Your task to perform on an android device: choose inbox layout in the gmail app Image 0: 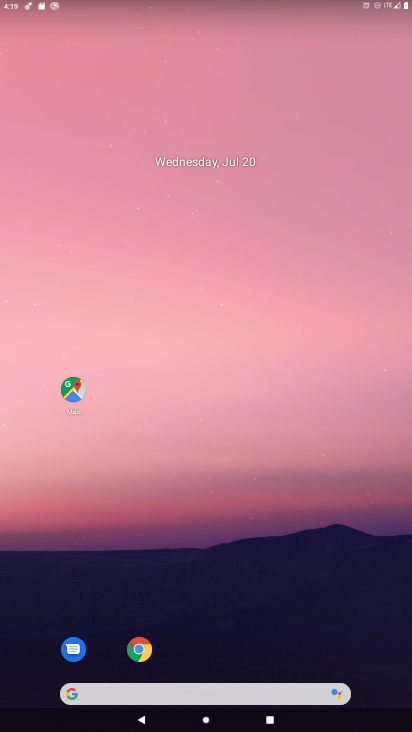
Step 0: drag from (163, 687) to (156, 30)
Your task to perform on an android device: choose inbox layout in the gmail app Image 1: 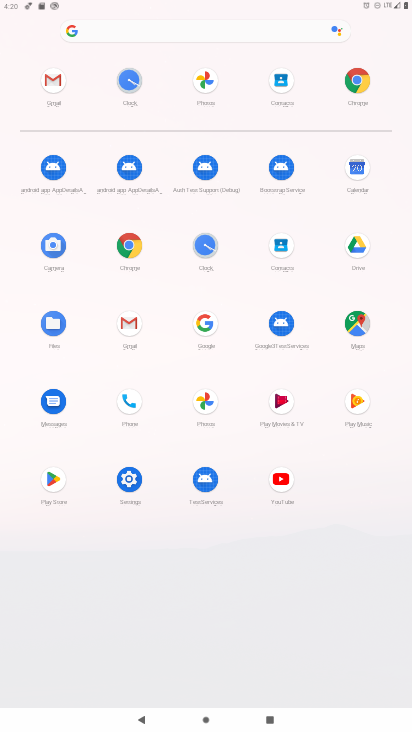
Step 1: click (128, 322)
Your task to perform on an android device: choose inbox layout in the gmail app Image 2: 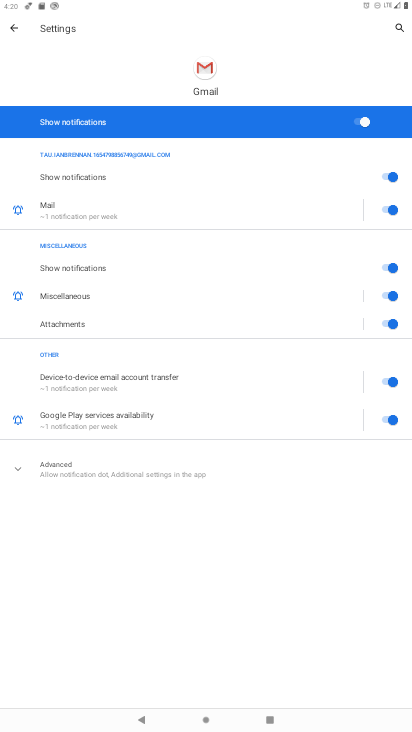
Step 2: press back button
Your task to perform on an android device: choose inbox layout in the gmail app Image 3: 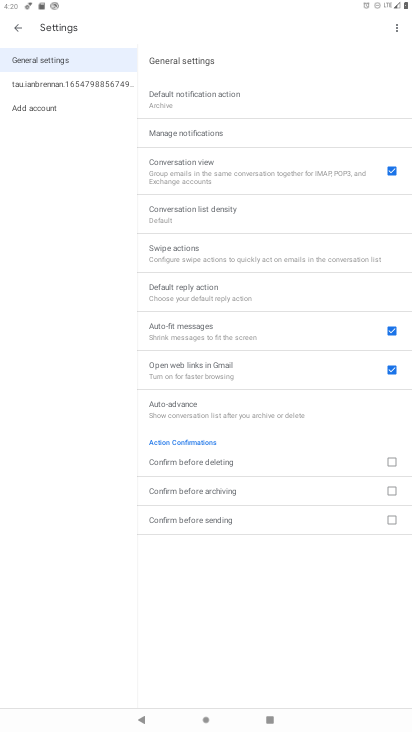
Step 3: click (87, 80)
Your task to perform on an android device: choose inbox layout in the gmail app Image 4: 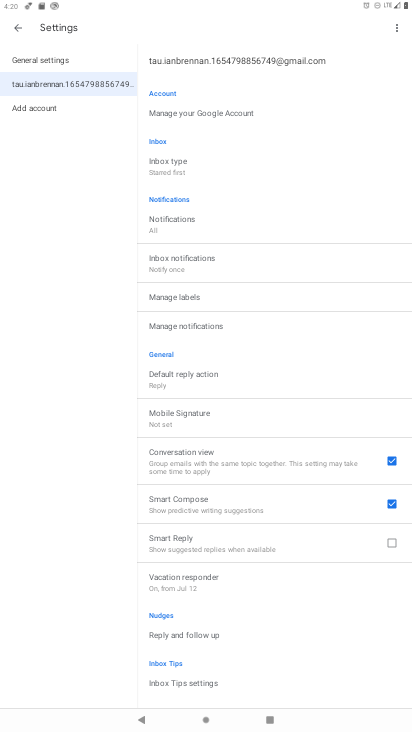
Step 4: click (178, 169)
Your task to perform on an android device: choose inbox layout in the gmail app Image 5: 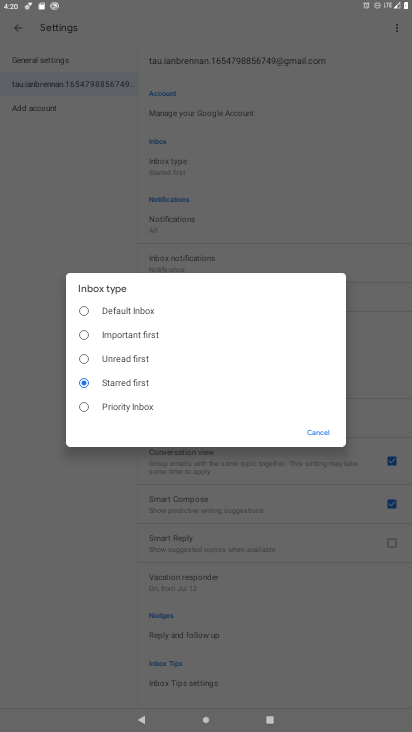
Step 5: click (137, 356)
Your task to perform on an android device: choose inbox layout in the gmail app Image 6: 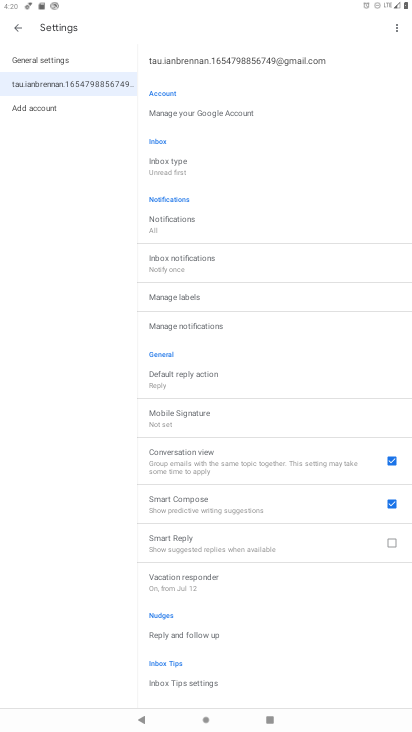
Step 6: task complete